Your task to perform on an android device: stop showing notifications on the lock screen Image 0: 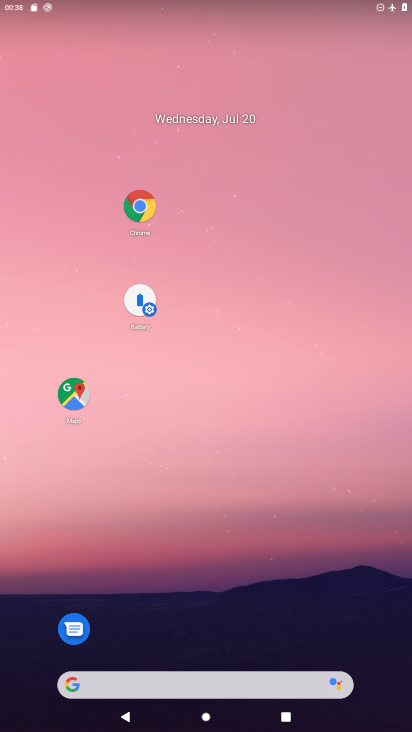
Step 0: drag from (172, 648) to (192, 19)
Your task to perform on an android device: stop showing notifications on the lock screen Image 1: 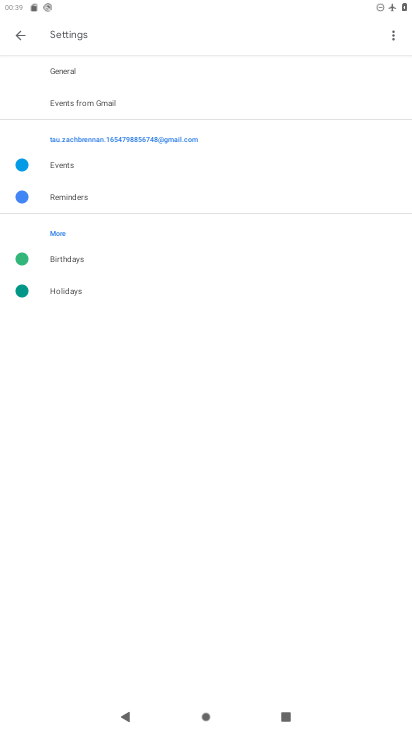
Step 1: press home button
Your task to perform on an android device: stop showing notifications on the lock screen Image 2: 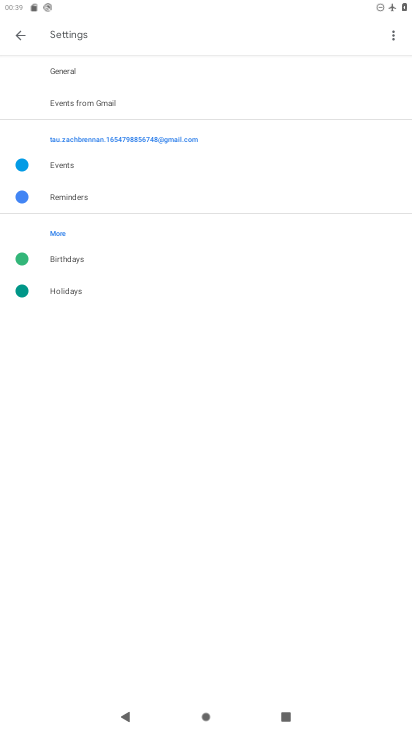
Step 2: press home button
Your task to perform on an android device: stop showing notifications on the lock screen Image 3: 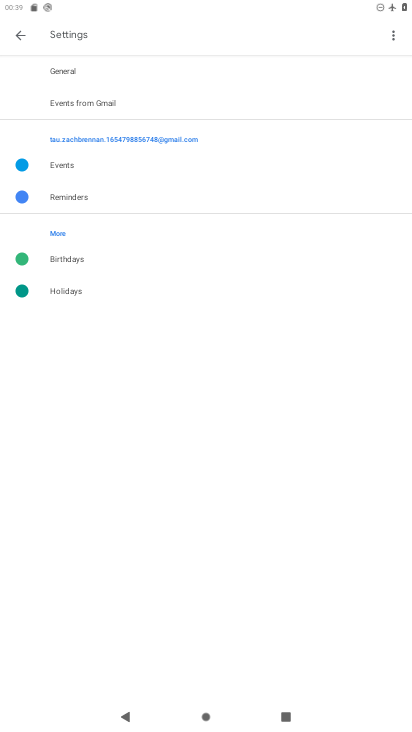
Step 3: click (410, 331)
Your task to perform on an android device: stop showing notifications on the lock screen Image 4: 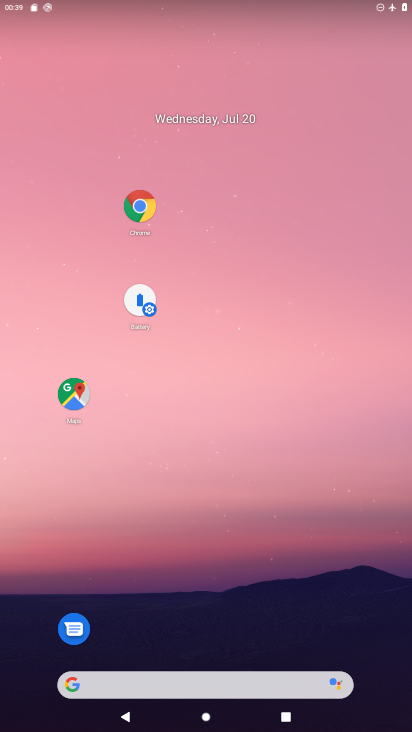
Step 4: drag from (203, 553) to (236, 214)
Your task to perform on an android device: stop showing notifications on the lock screen Image 5: 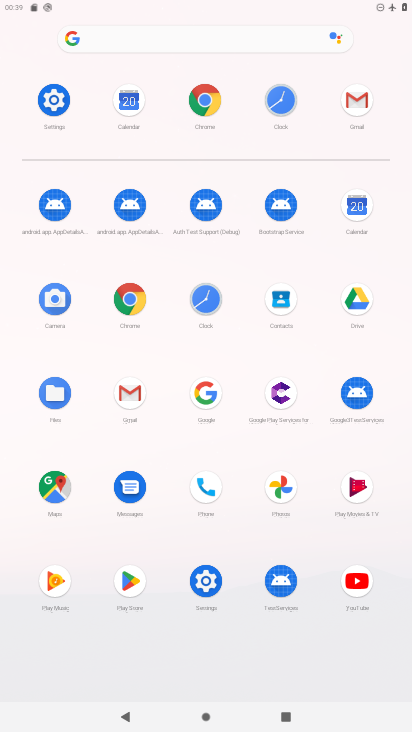
Step 5: click (202, 576)
Your task to perform on an android device: stop showing notifications on the lock screen Image 6: 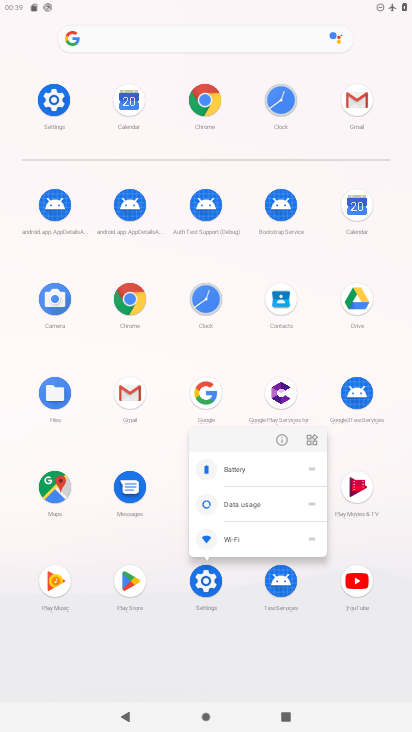
Step 6: click (284, 431)
Your task to perform on an android device: stop showing notifications on the lock screen Image 7: 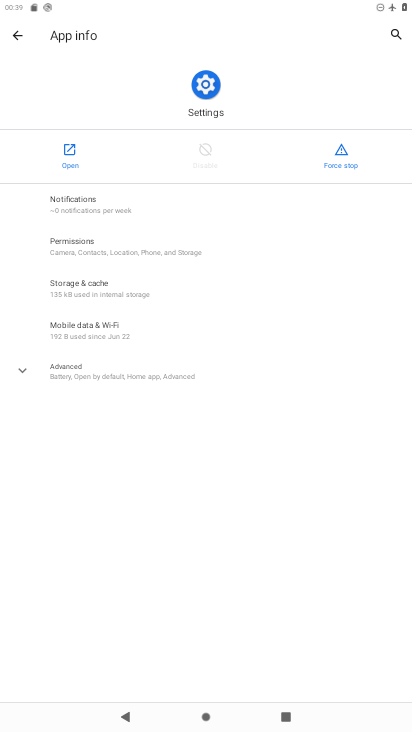
Step 7: click (73, 148)
Your task to perform on an android device: stop showing notifications on the lock screen Image 8: 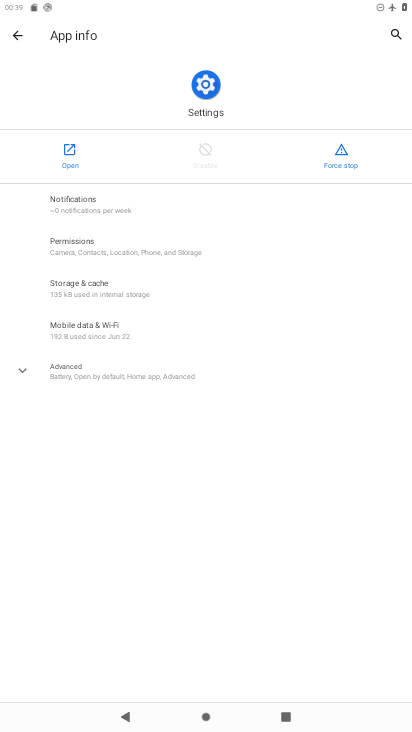
Step 8: click (73, 148)
Your task to perform on an android device: stop showing notifications on the lock screen Image 9: 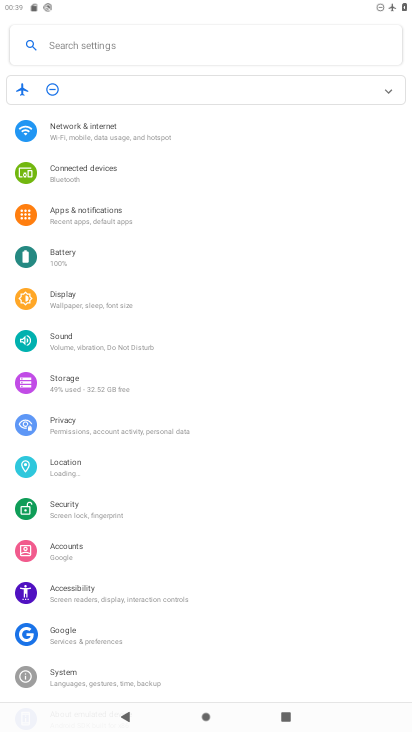
Step 9: click (133, 213)
Your task to perform on an android device: stop showing notifications on the lock screen Image 10: 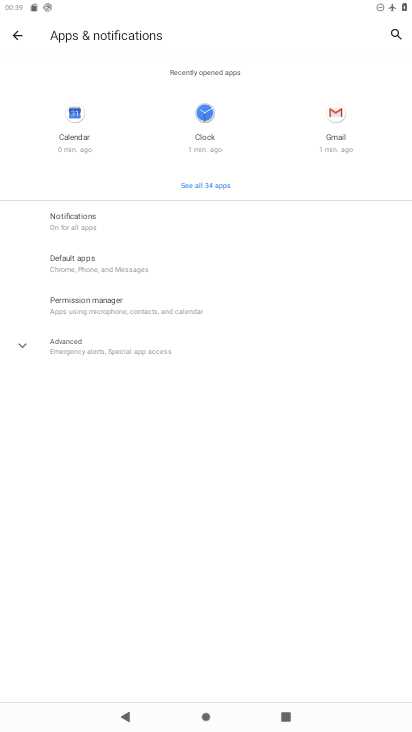
Step 10: click (136, 215)
Your task to perform on an android device: stop showing notifications on the lock screen Image 11: 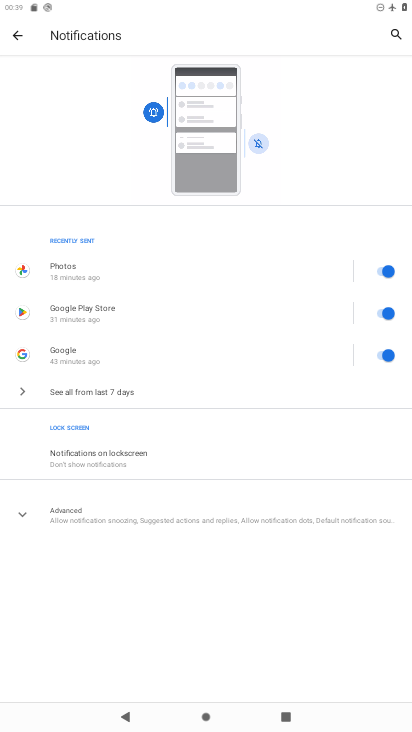
Step 11: click (155, 449)
Your task to perform on an android device: stop showing notifications on the lock screen Image 12: 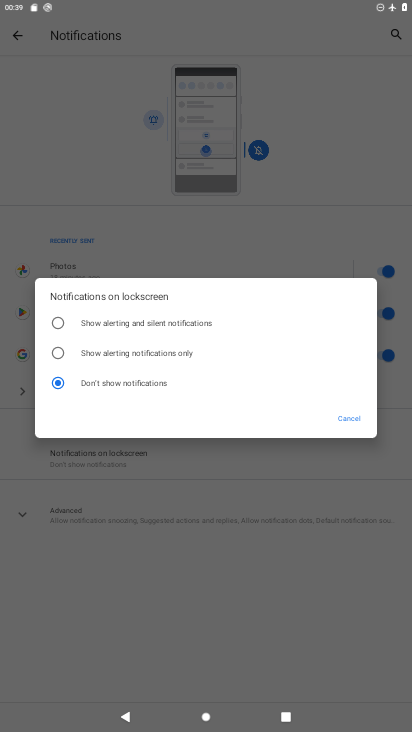
Step 12: task complete